Your task to perform on an android device: Open Reddit.com Image 0: 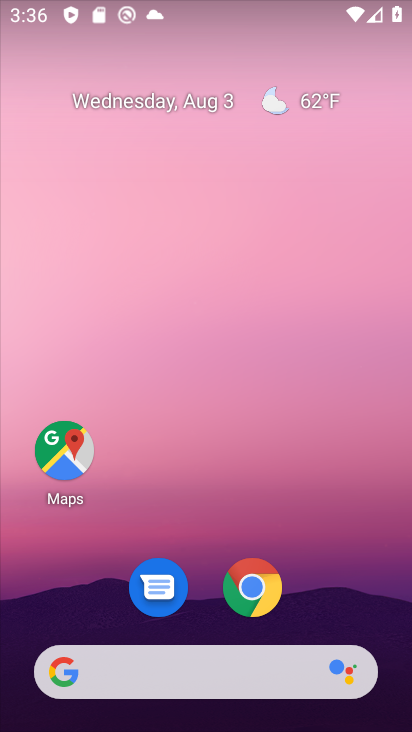
Step 0: click (124, 661)
Your task to perform on an android device: Open Reddit.com Image 1: 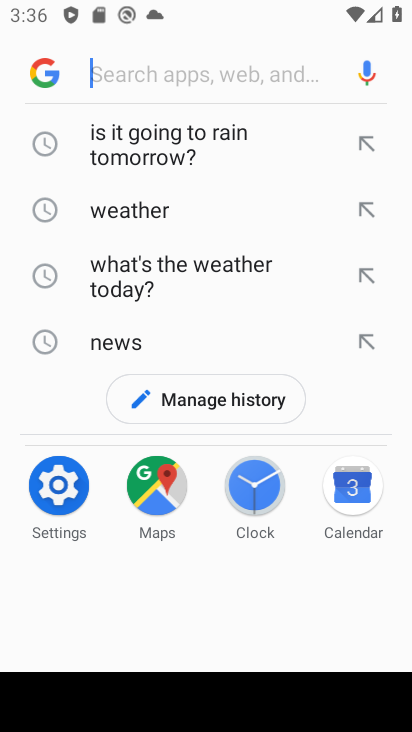
Step 1: type " Reddit.com"
Your task to perform on an android device: Open Reddit.com Image 2: 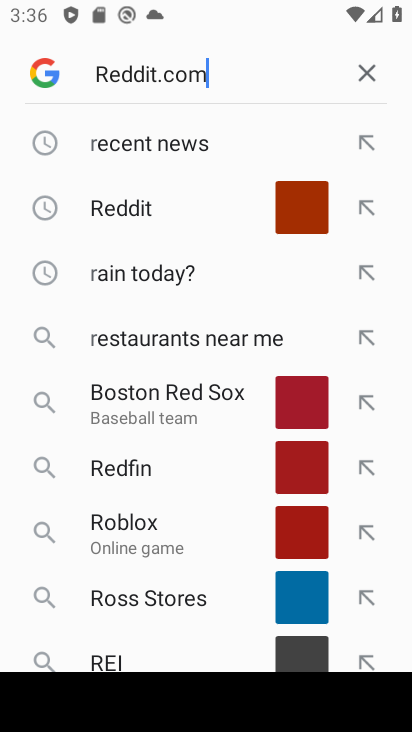
Step 2: type ""
Your task to perform on an android device: Open Reddit.com Image 3: 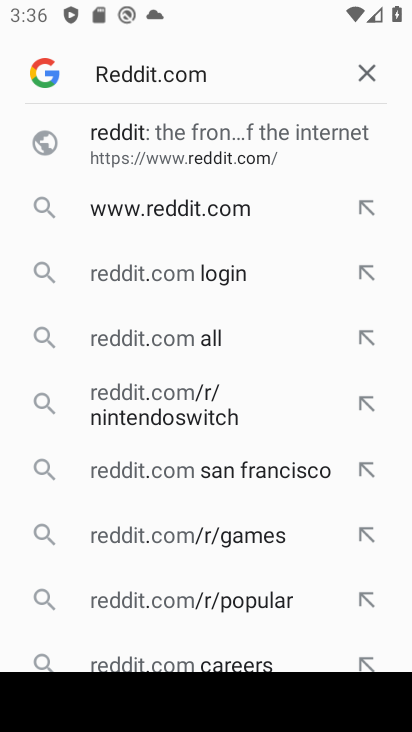
Step 3: type ""
Your task to perform on an android device: Open Reddit.com Image 4: 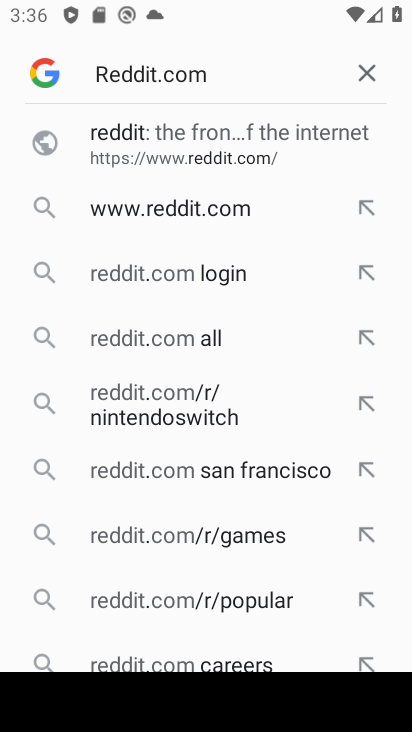
Step 4: type ""
Your task to perform on an android device: Open Reddit.com Image 5: 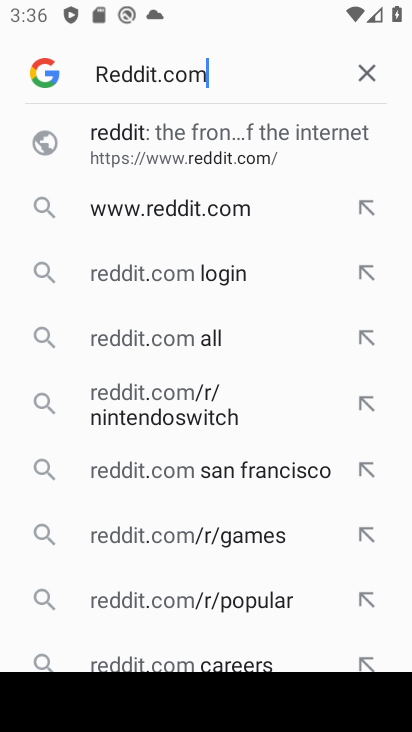
Step 5: task complete